Your task to perform on an android device: toggle airplane mode Image 0: 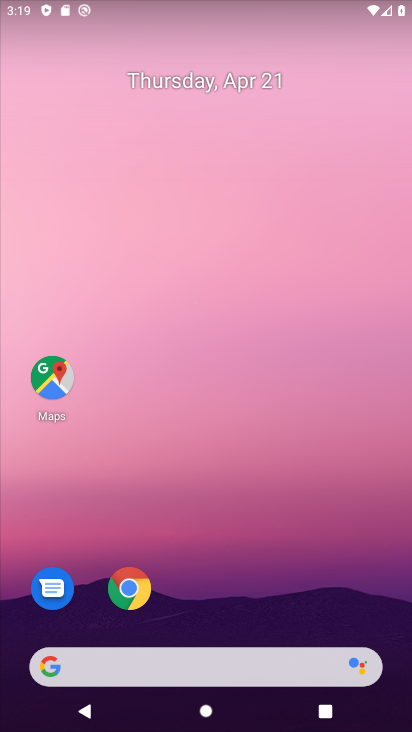
Step 0: drag from (206, 662) to (191, 151)
Your task to perform on an android device: toggle airplane mode Image 1: 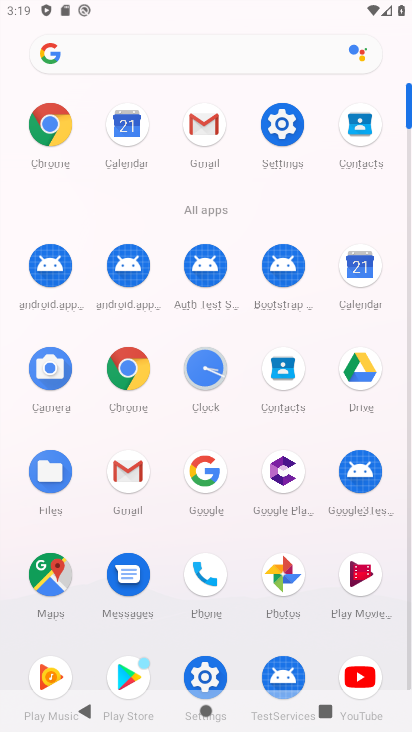
Step 1: click (292, 126)
Your task to perform on an android device: toggle airplane mode Image 2: 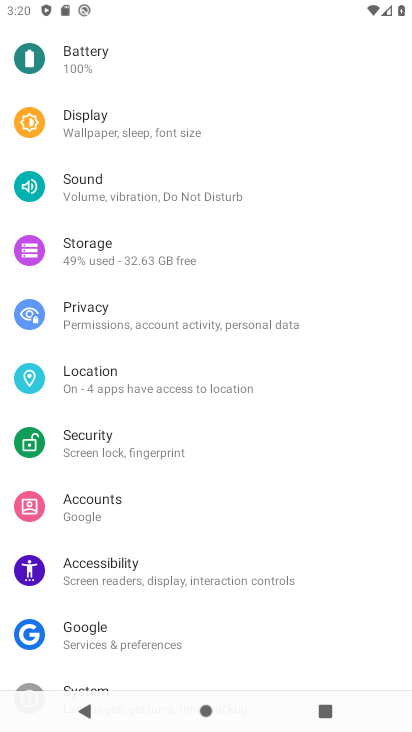
Step 2: drag from (212, 69) to (190, 549)
Your task to perform on an android device: toggle airplane mode Image 3: 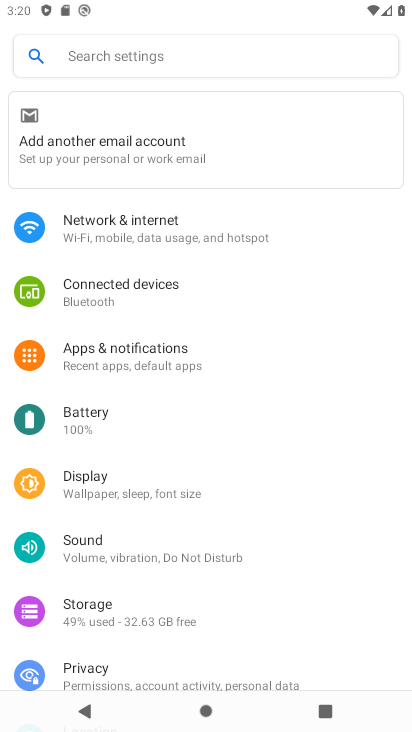
Step 3: click (166, 225)
Your task to perform on an android device: toggle airplane mode Image 4: 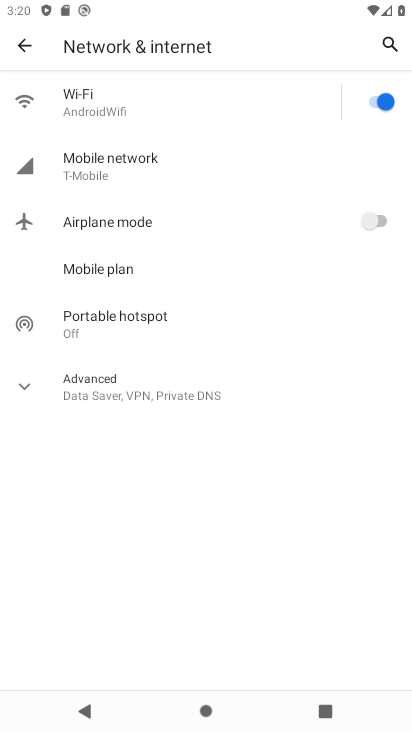
Step 4: click (374, 219)
Your task to perform on an android device: toggle airplane mode Image 5: 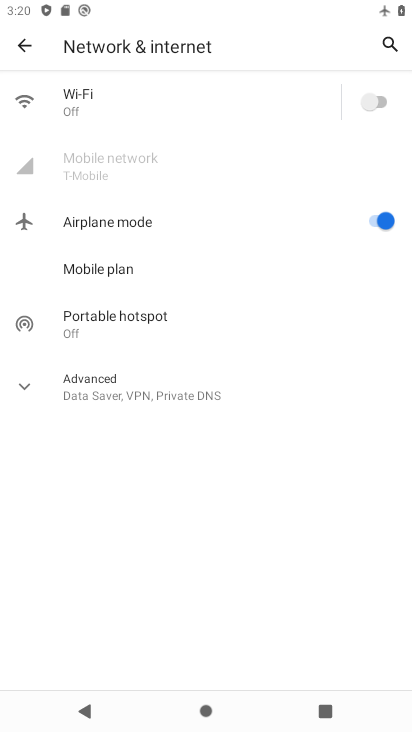
Step 5: task complete